Your task to perform on an android device: Add macbook air to the cart on amazon, then select checkout. Image 0: 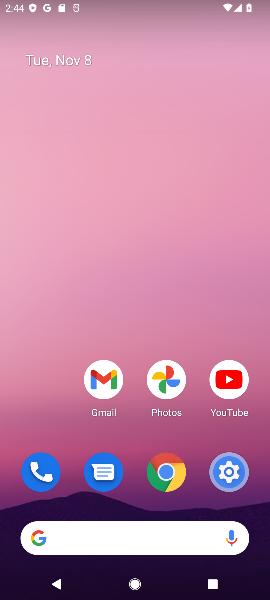
Step 0: click (123, 549)
Your task to perform on an android device: Add macbook air to the cart on amazon, then select checkout. Image 1: 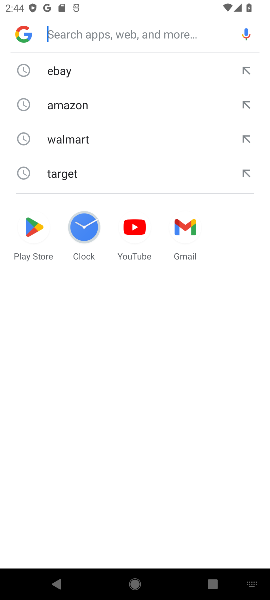
Step 1: click (57, 105)
Your task to perform on an android device: Add macbook air to the cart on amazon, then select checkout. Image 2: 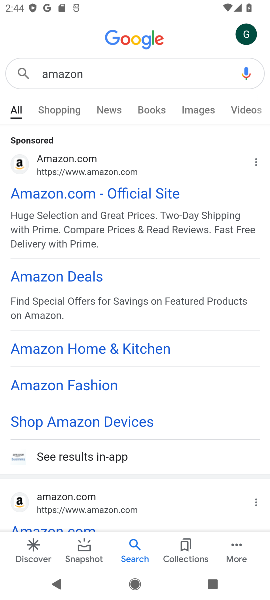
Step 2: click (58, 182)
Your task to perform on an android device: Add macbook air to the cart on amazon, then select checkout. Image 3: 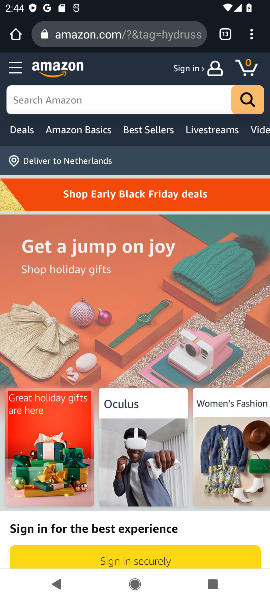
Step 3: task complete